Your task to perform on an android device: Open my contact list Image 0: 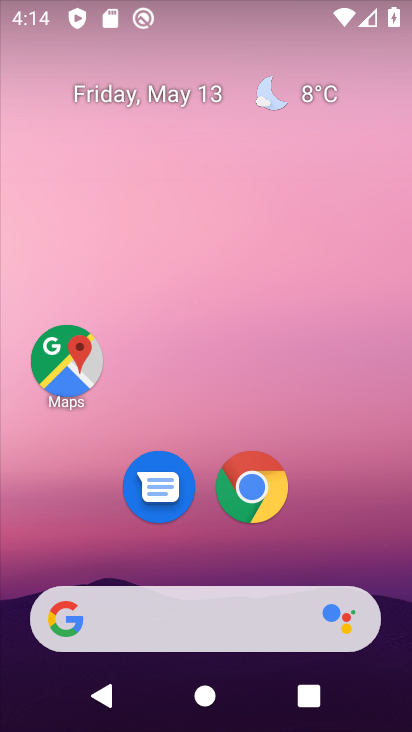
Step 0: drag from (336, 548) to (323, 26)
Your task to perform on an android device: Open my contact list Image 1: 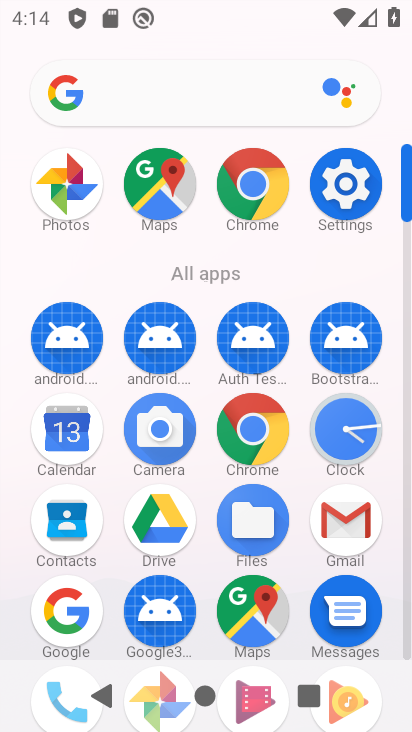
Step 1: click (407, 621)
Your task to perform on an android device: Open my contact list Image 2: 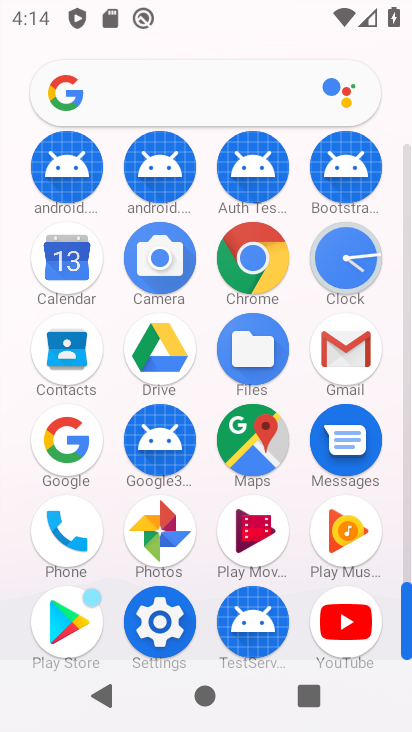
Step 2: click (74, 360)
Your task to perform on an android device: Open my contact list Image 3: 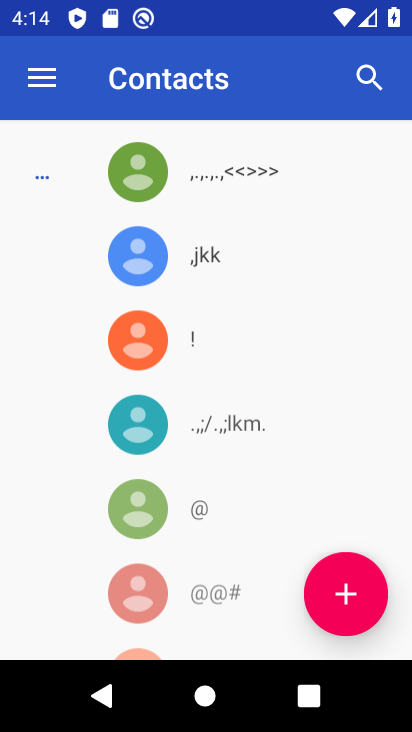
Step 3: task complete